Your task to perform on an android device: Go to eBay Image 0: 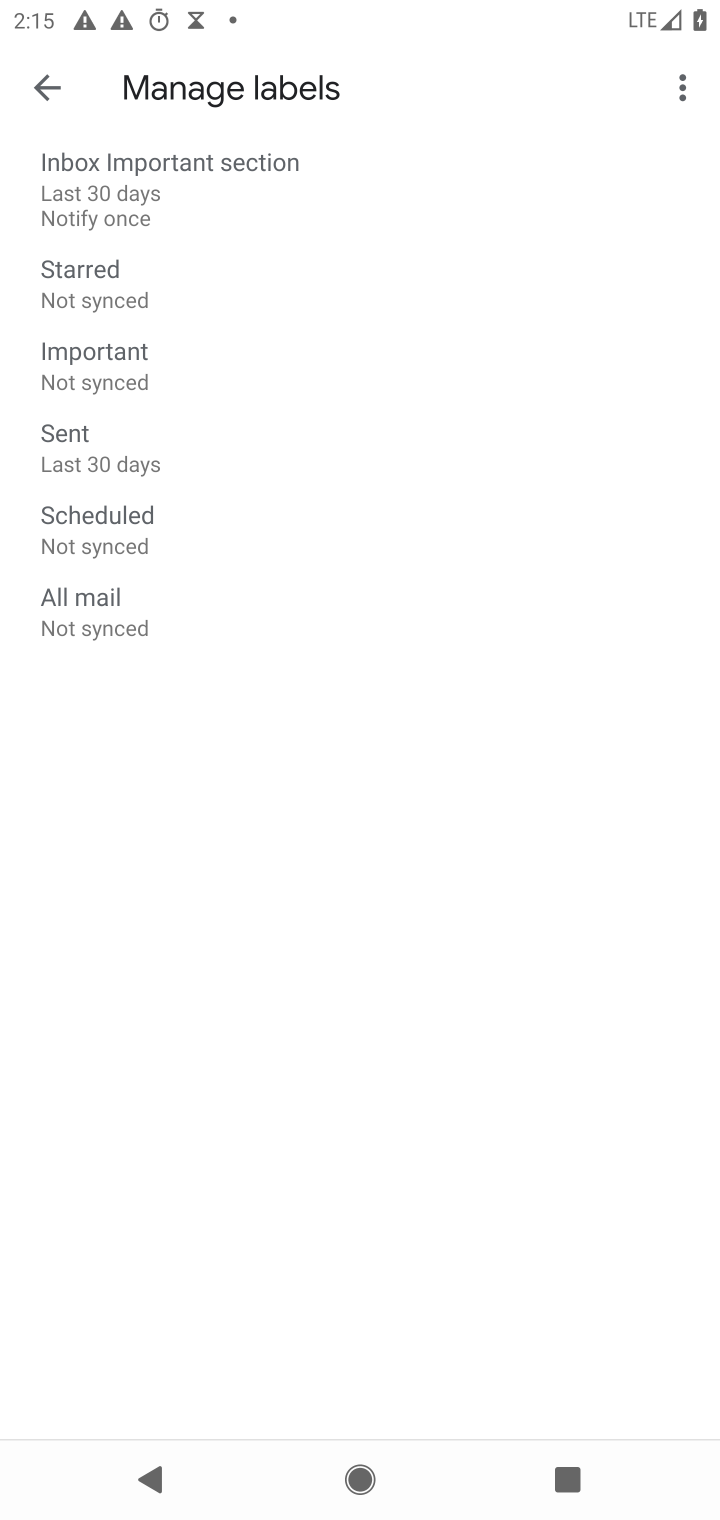
Step 0: press home button
Your task to perform on an android device: Go to eBay Image 1: 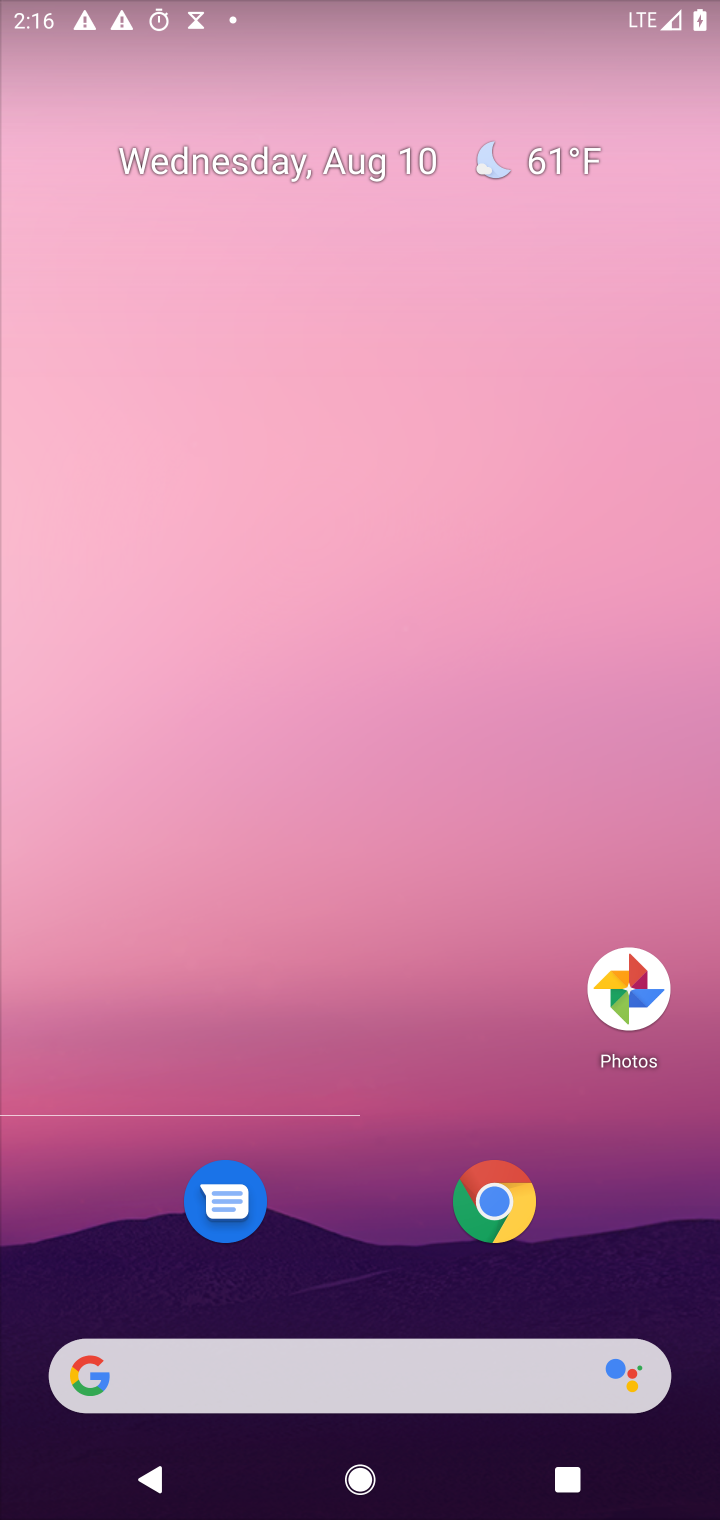
Step 1: click (91, 1398)
Your task to perform on an android device: Go to eBay Image 2: 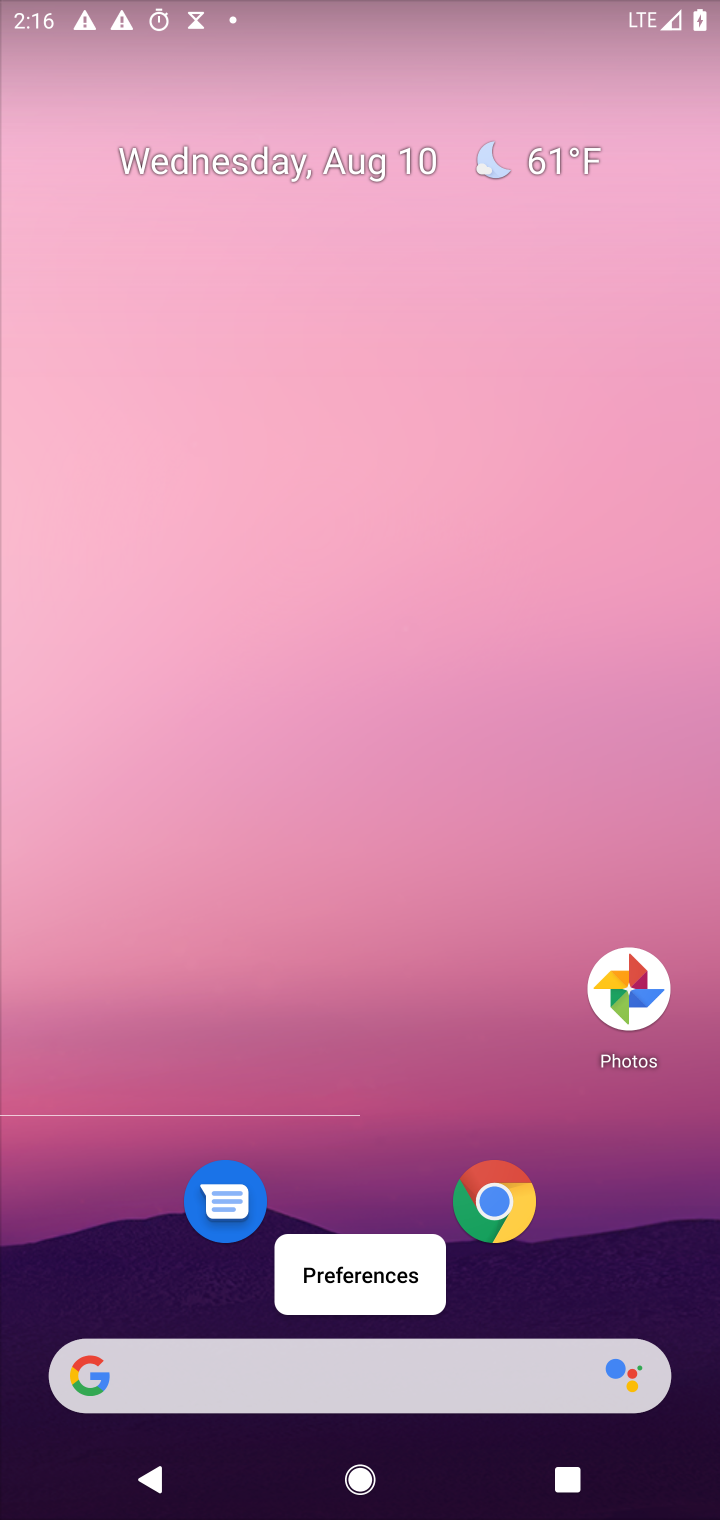
Step 2: click (91, 1398)
Your task to perform on an android device: Go to eBay Image 3: 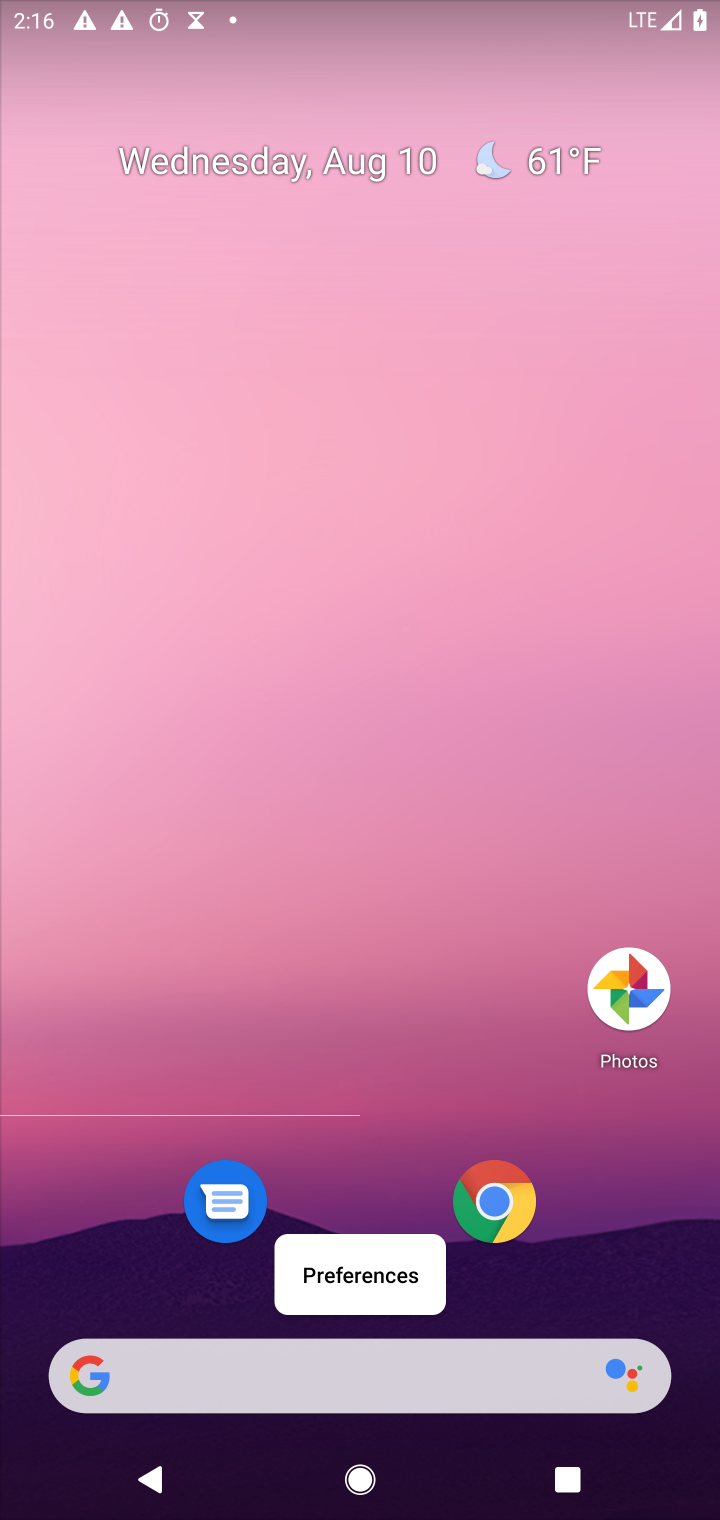
Step 3: click (84, 1359)
Your task to perform on an android device: Go to eBay Image 4: 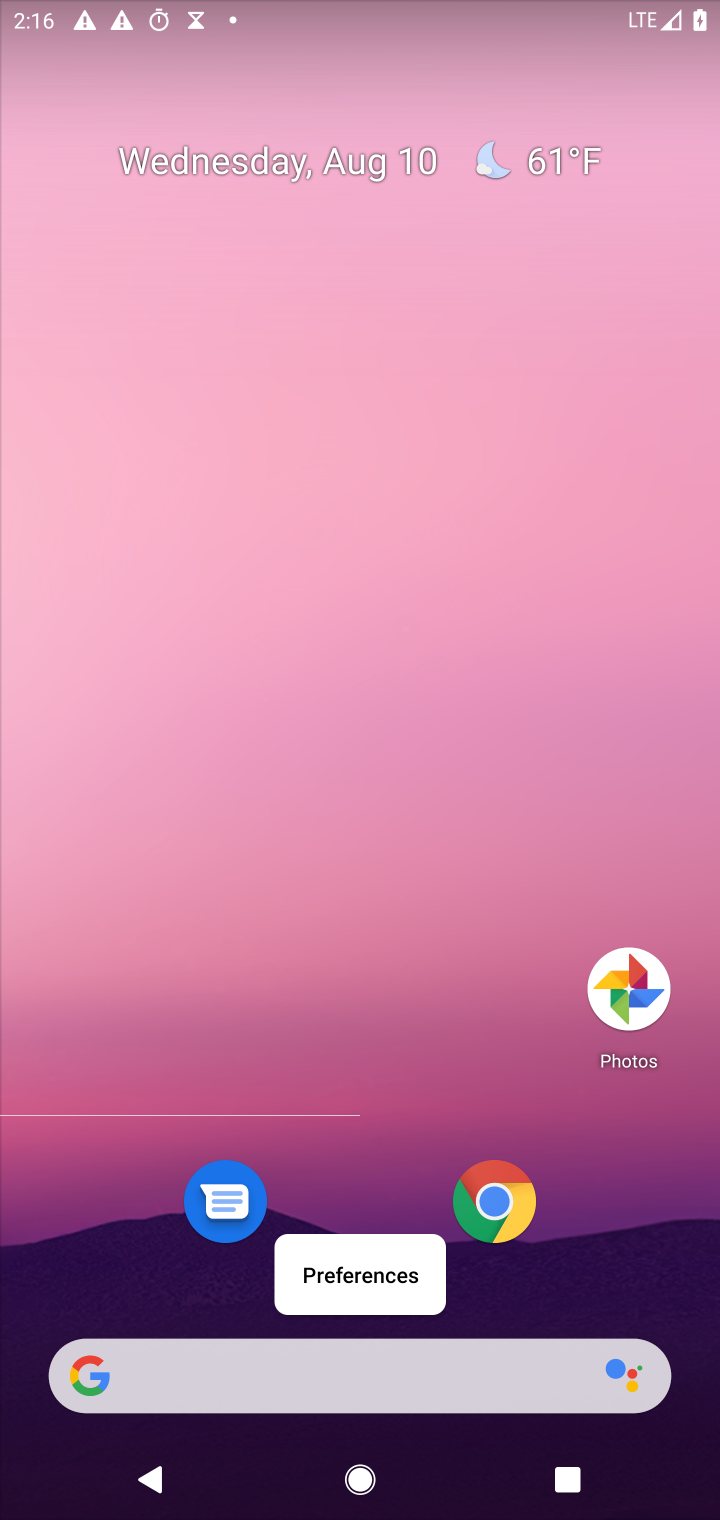
Step 4: click (84, 1359)
Your task to perform on an android device: Go to eBay Image 5: 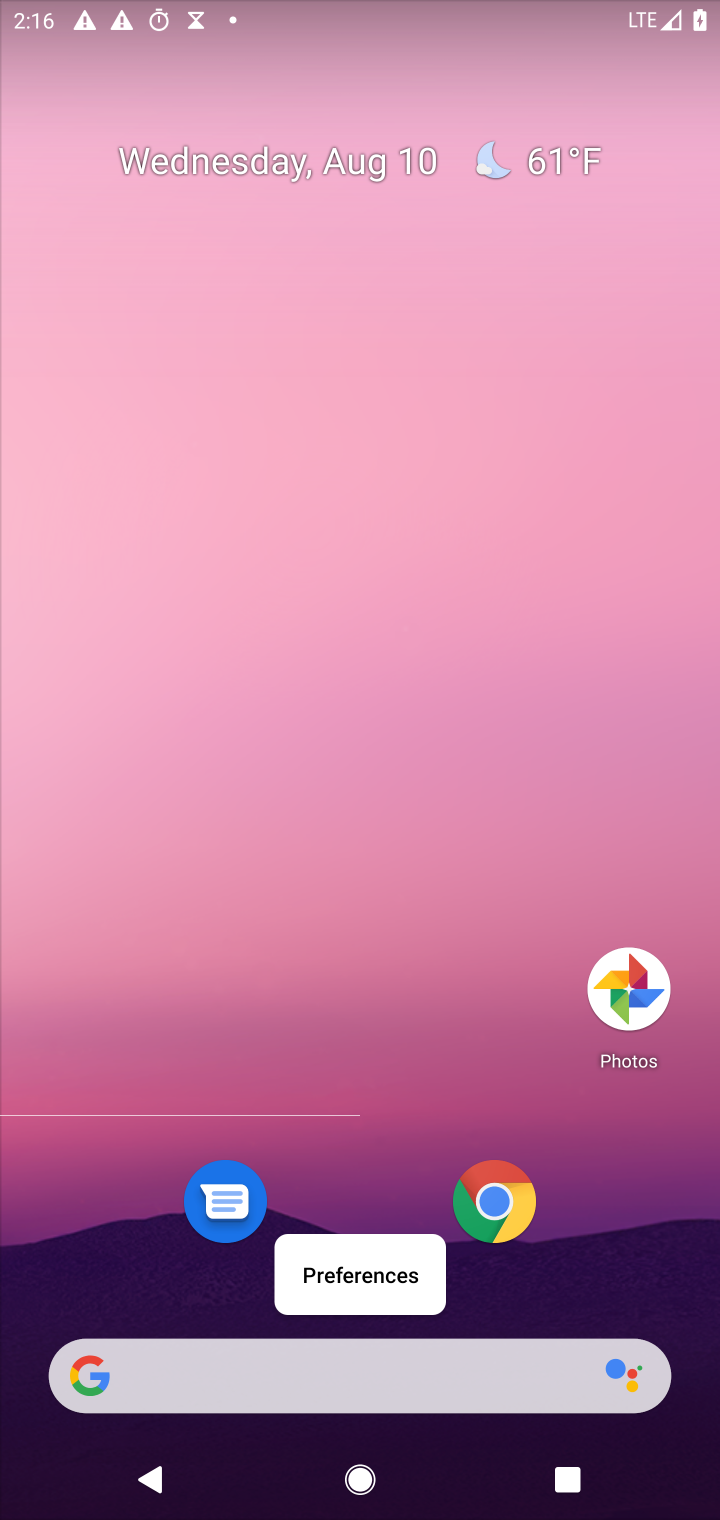
Step 5: click (94, 1365)
Your task to perform on an android device: Go to eBay Image 6: 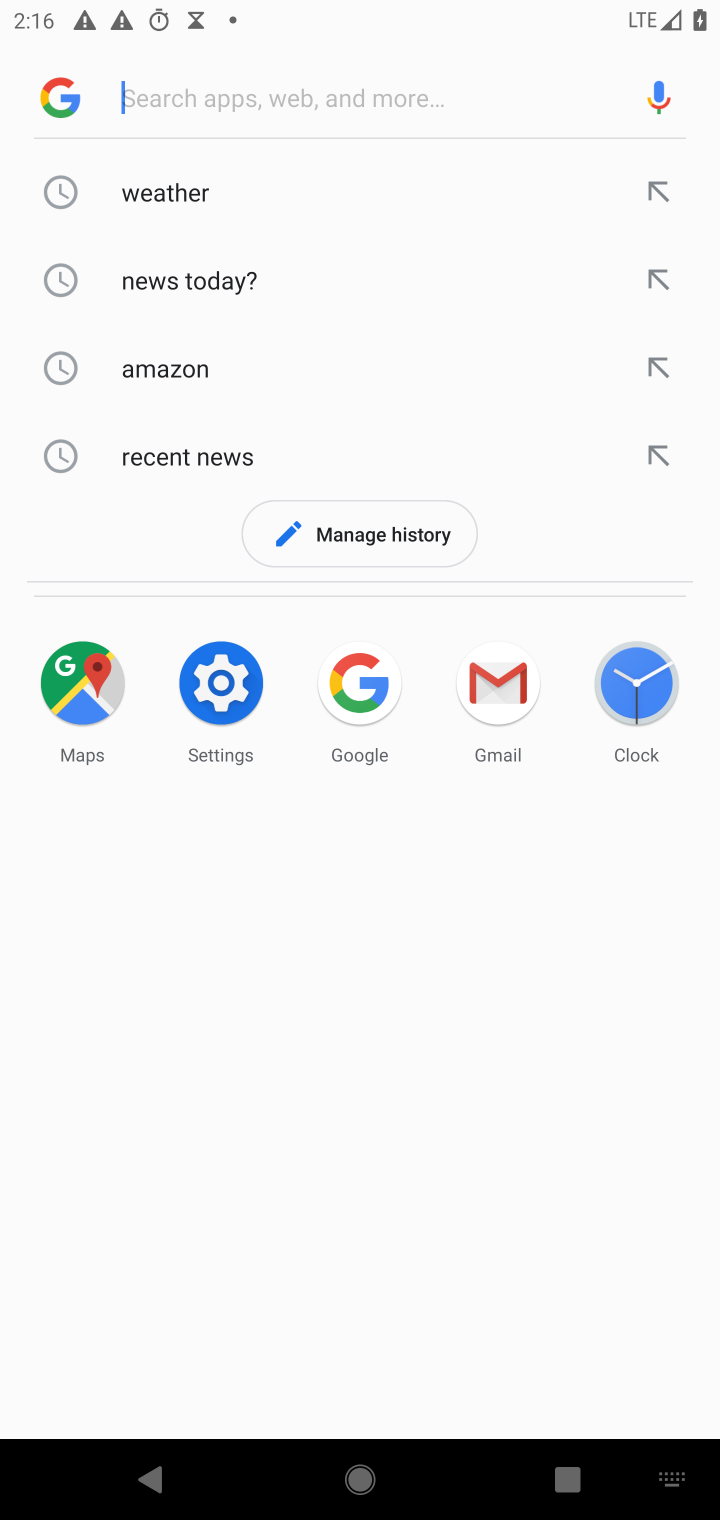
Step 6: type " eBay"
Your task to perform on an android device: Go to eBay Image 7: 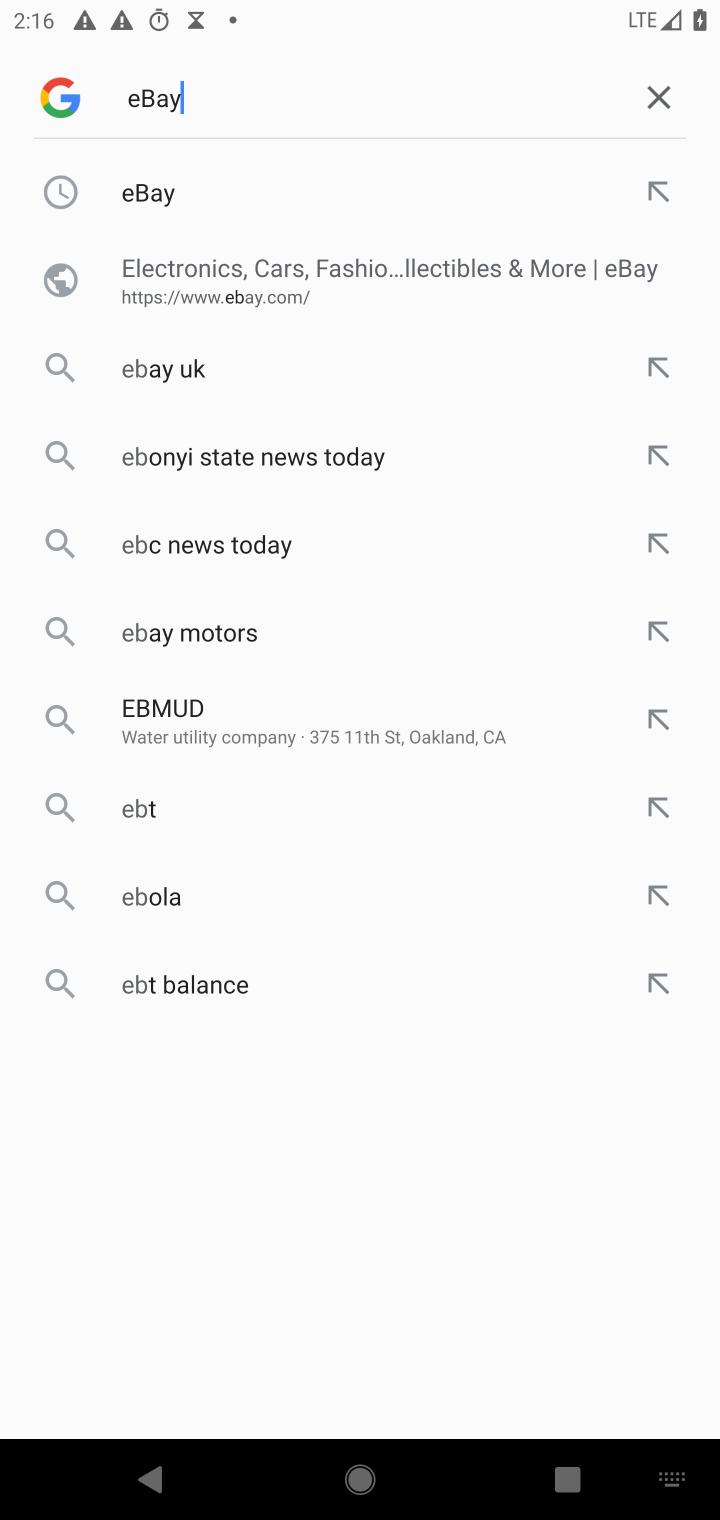
Step 7: press enter
Your task to perform on an android device: Go to eBay Image 8: 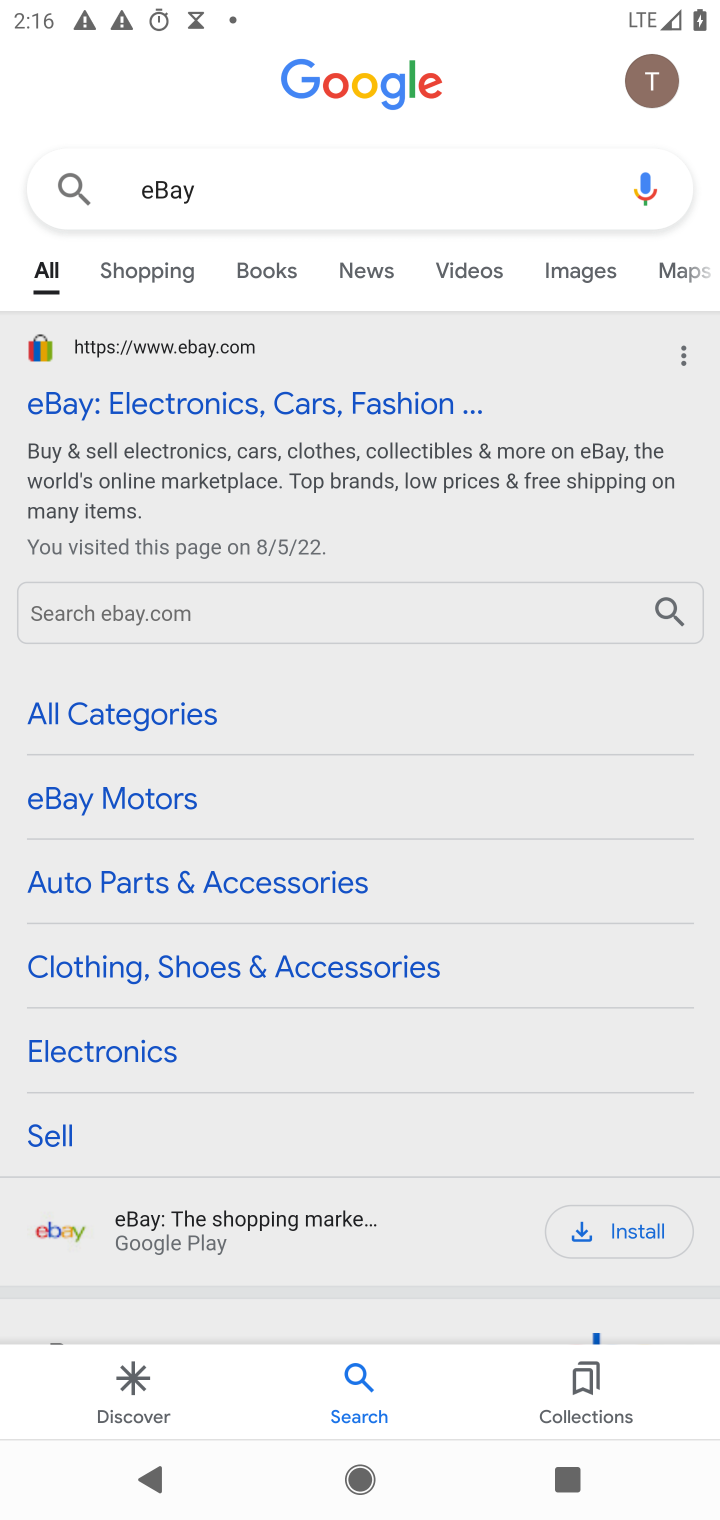
Step 8: click (241, 406)
Your task to perform on an android device: Go to eBay Image 9: 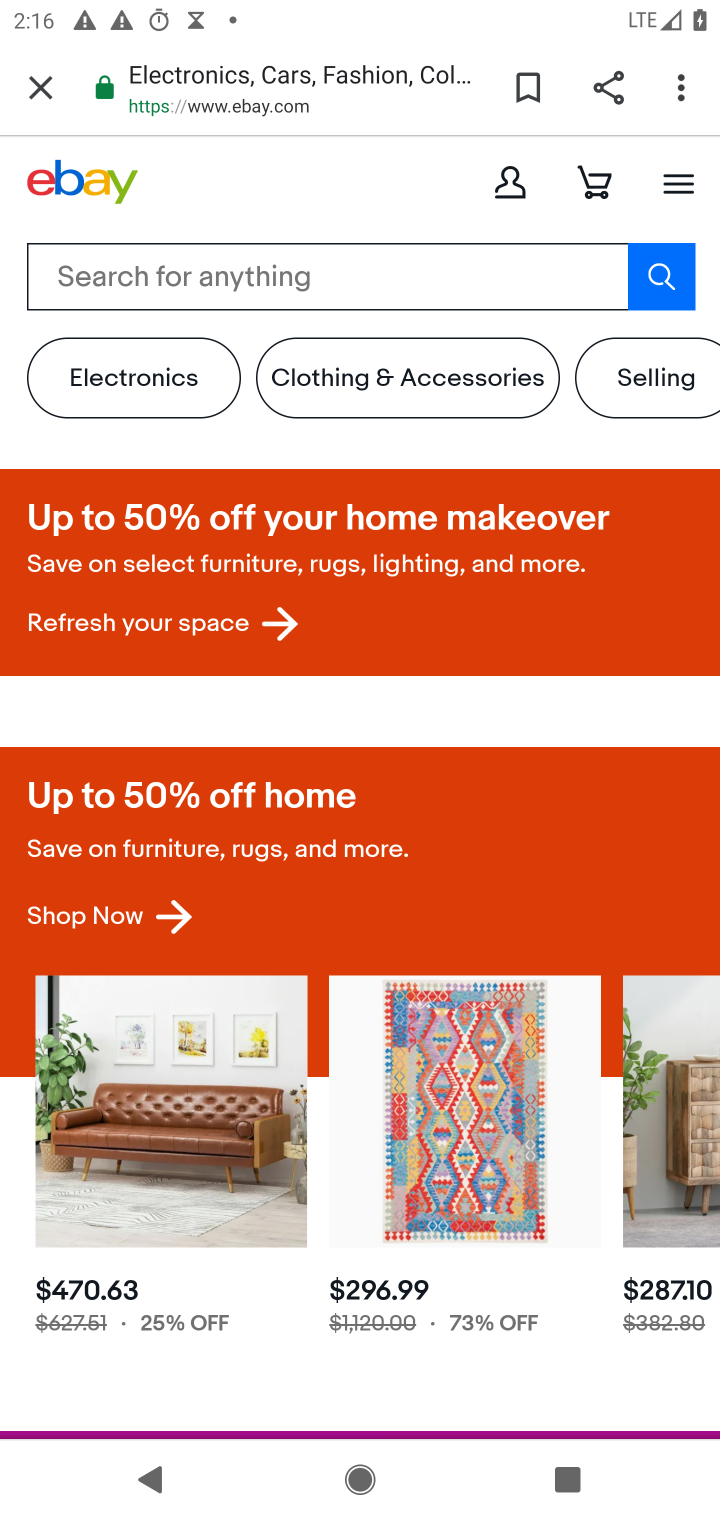
Step 9: task complete